Your task to perform on an android device: change notifications settings Image 0: 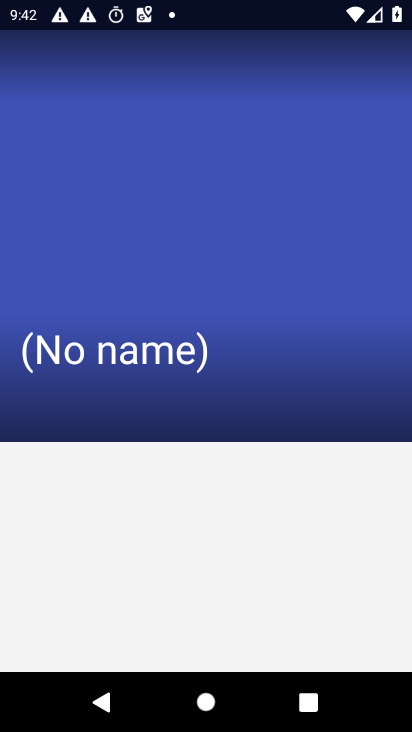
Step 0: press home button
Your task to perform on an android device: change notifications settings Image 1: 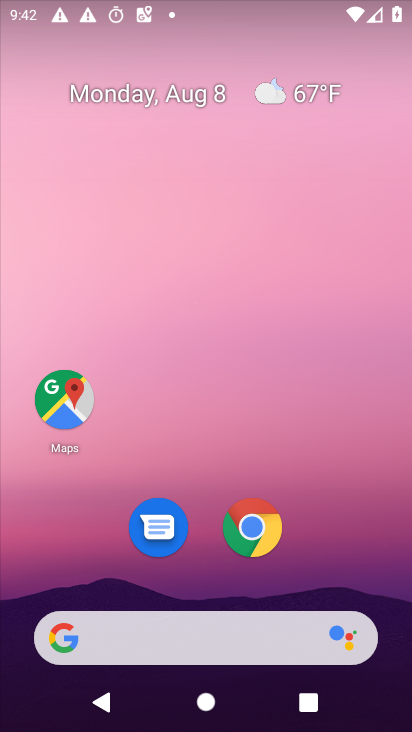
Step 1: drag from (389, 676) to (288, 212)
Your task to perform on an android device: change notifications settings Image 2: 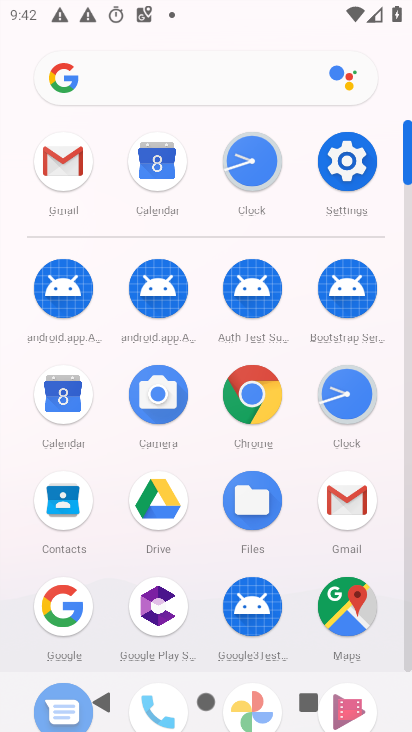
Step 2: click (329, 162)
Your task to perform on an android device: change notifications settings Image 3: 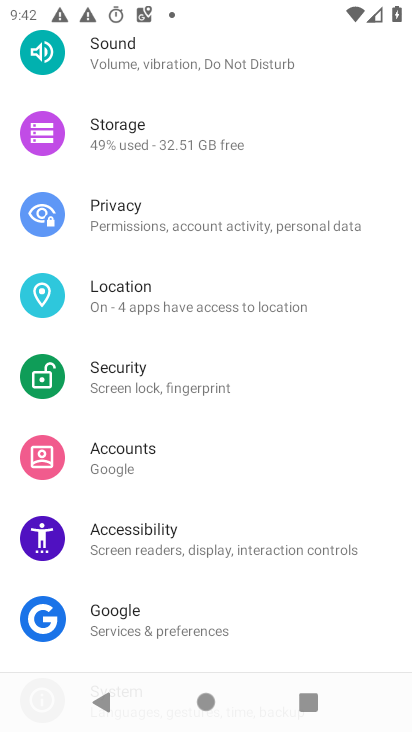
Step 3: drag from (260, 145) to (281, 536)
Your task to perform on an android device: change notifications settings Image 4: 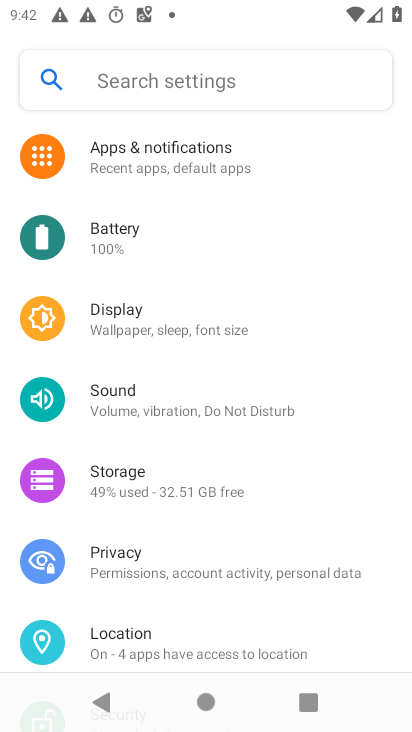
Step 4: click (153, 143)
Your task to perform on an android device: change notifications settings Image 5: 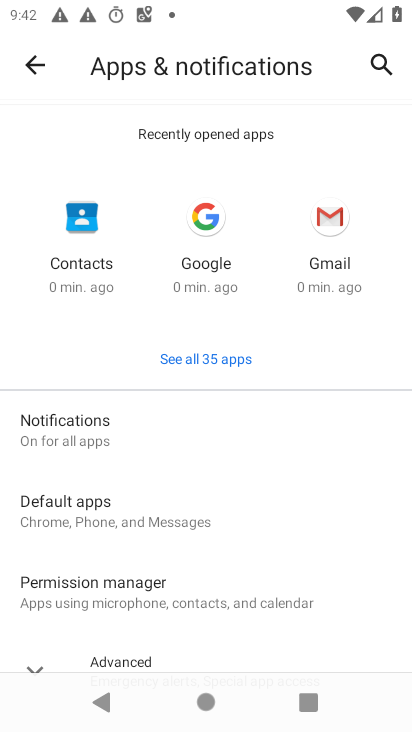
Step 5: click (58, 417)
Your task to perform on an android device: change notifications settings Image 6: 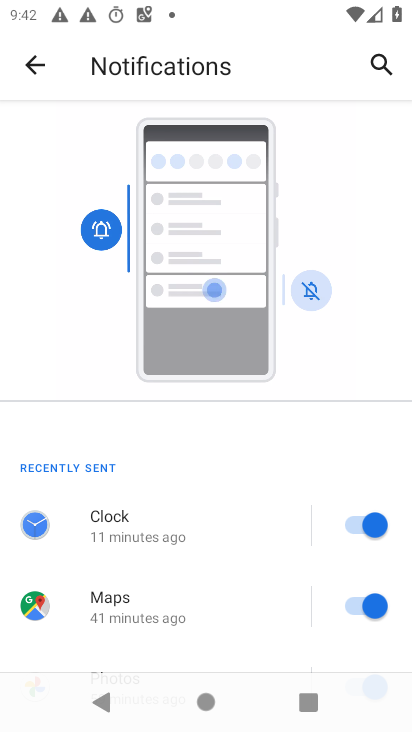
Step 6: drag from (234, 644) to (257, 203)
Your task to perform on an android device: change notifications settings Image 7: 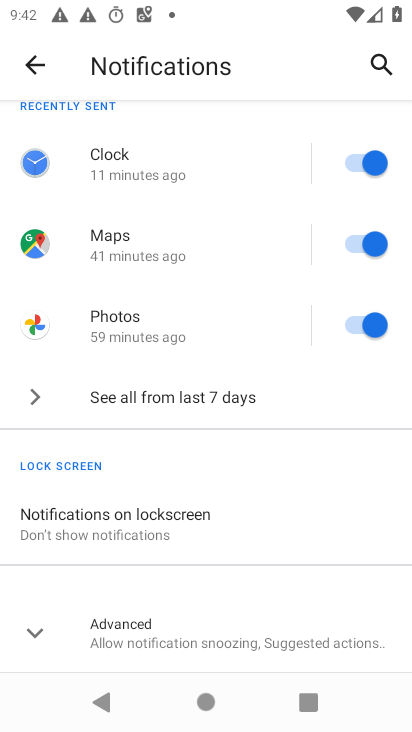
Step 7: drag from (269, 559) to (301, 282)
Your task to perform on an android device: change notifications settings Image 8: 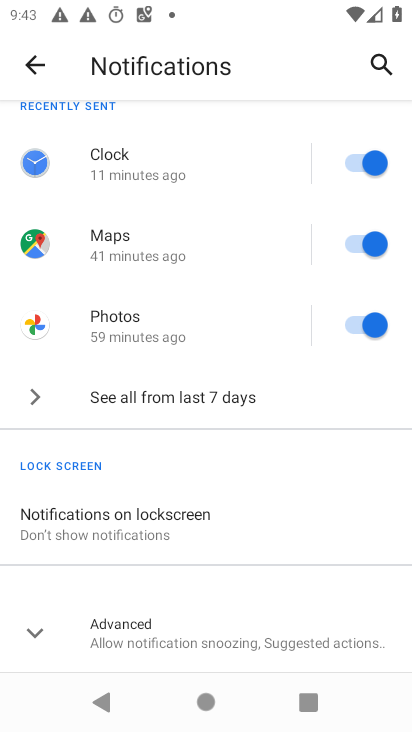
Step 8: click (31, 631)
Your task to perform on an android device: change notifications settings Image 9: 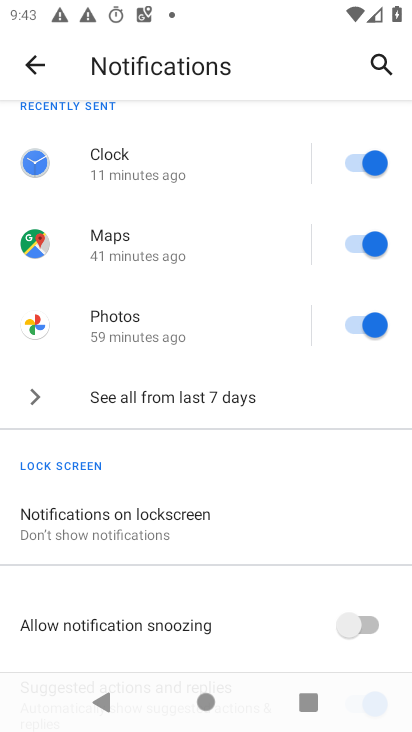
Step 9: task complete